Your task to perform on an android device: Open Google Chrome and open the bookmarks view Image 0: 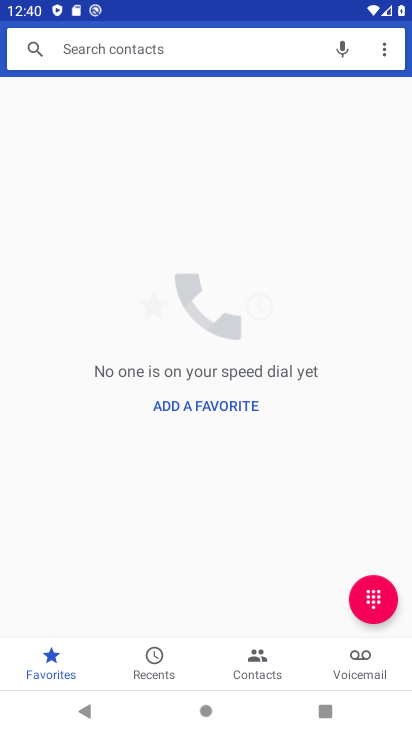
Step 0: press back button
Your task to perform on an android device: Open Google Chrome and open the bookmarks view Image 1: 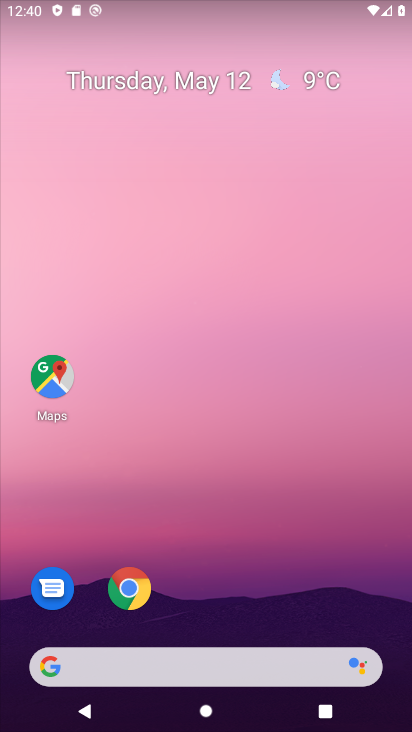
Step 1: drag from (254, 645) to (187, 143)
Your task to perform on an android device: Open Google Chrome and open the bookmarks view Image 2: 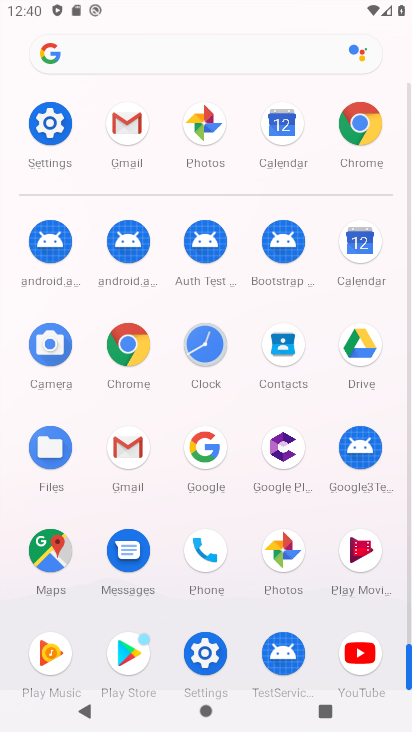
Step 2: click (351, 123)
Your task to perform on an android device: Open Google Chrome and open the bookmarks view Image 3: 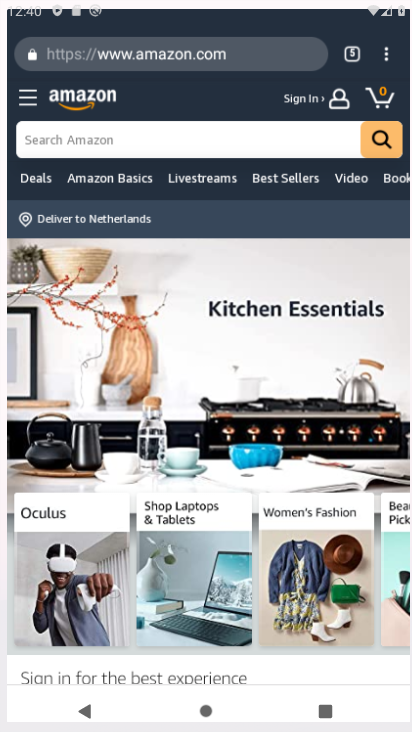
Step 3: click (352, 122)
Your task to perform on an android device: Open Google Chrome and open the bookmarks view Image 4: 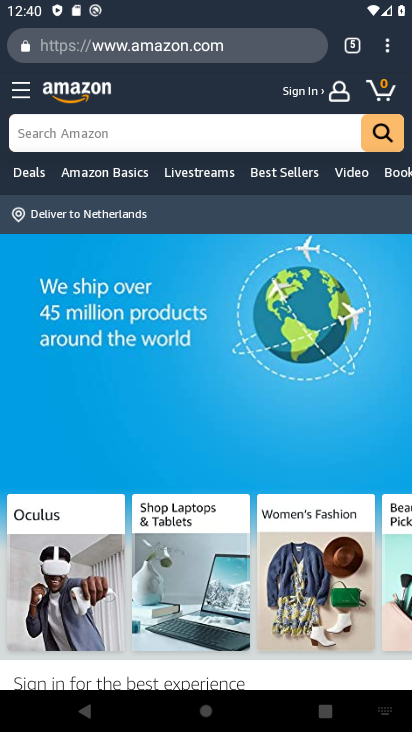
Step 4: task complete